Your task to perform on an android device: change keyboard looks Image 0: 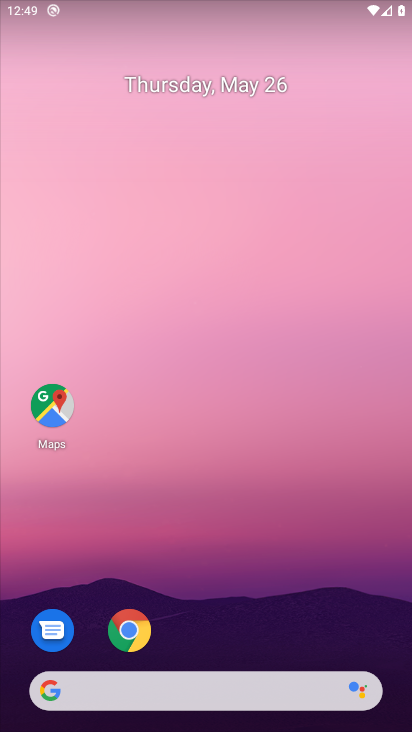
Step 0: press home button
Your task to perform on an android device: change keyboard looks Image 1: 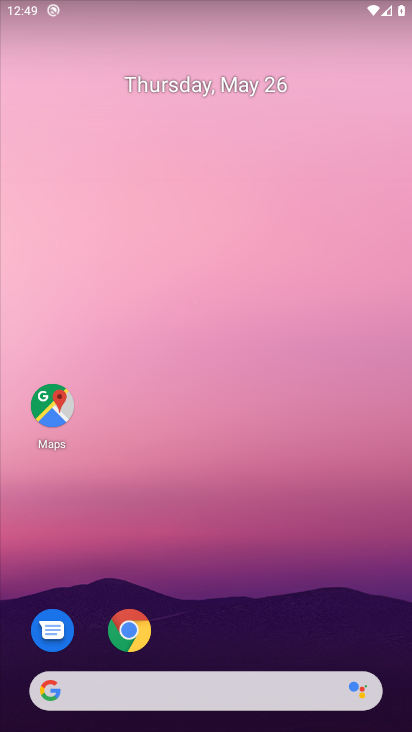
Step 1: drag from (220, 640) to (216, 110)
Your task to perform on an android device: change keyboard looks Image 2: 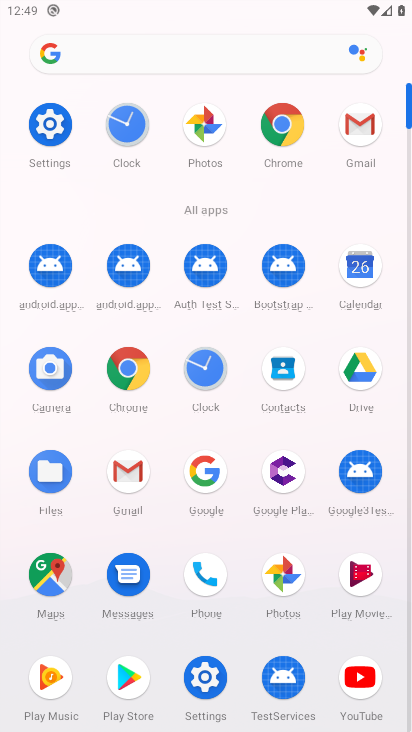
Step 2: click (43, 118)
Your task to perform on an android device: change keyboard looks Image 3: 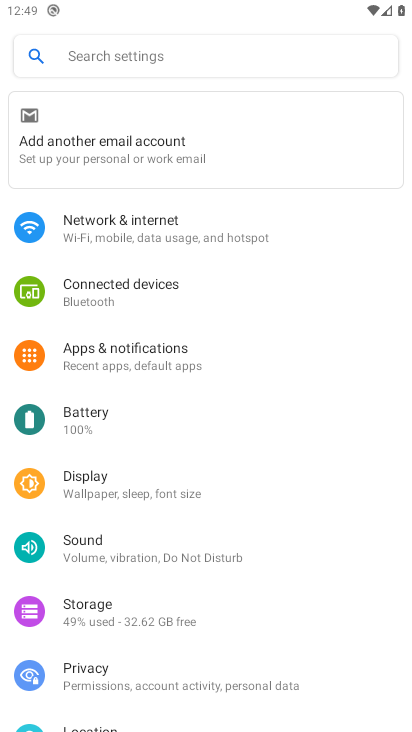
Step 3: drag from (140, 626) to (207, 149)
Your task to perform on an android device: change keyboard looks Image 4: 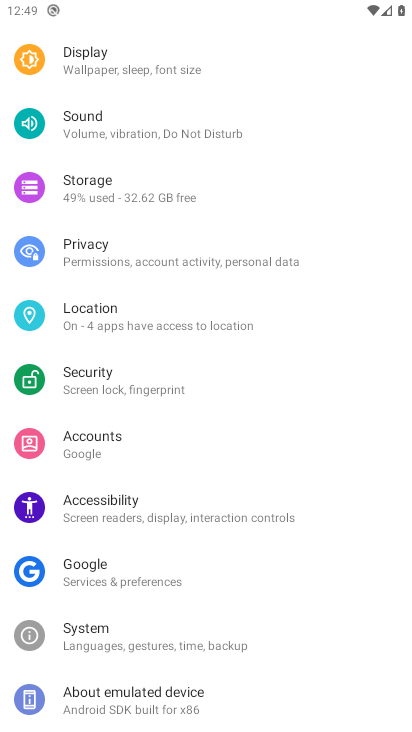
Step 4: click (118, 642)
Your task to perform on an android device: change keyboard looks Image 5: 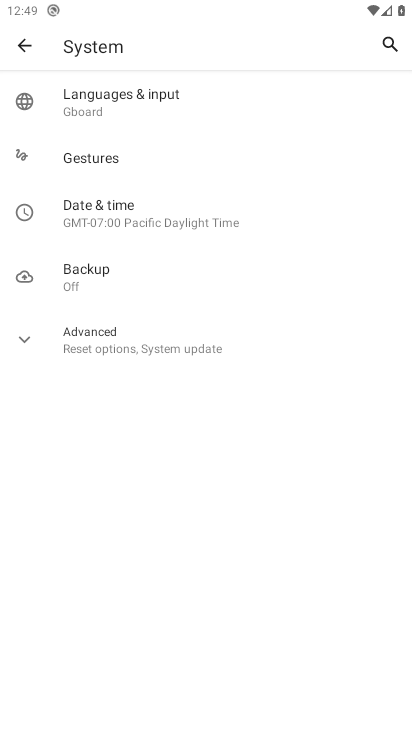
Step 5: click (129, 95)
Your task to perform on an android device: change keyboard looks Image 6: 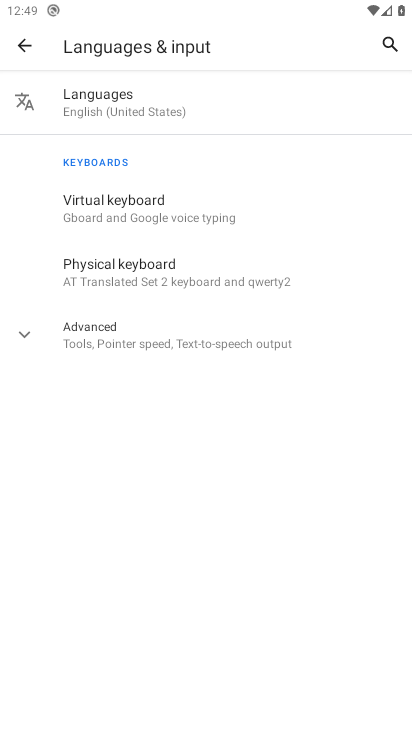
Step 6: click (27, 333)
Your task to perform on an android device: change keyboard looks Image 7: 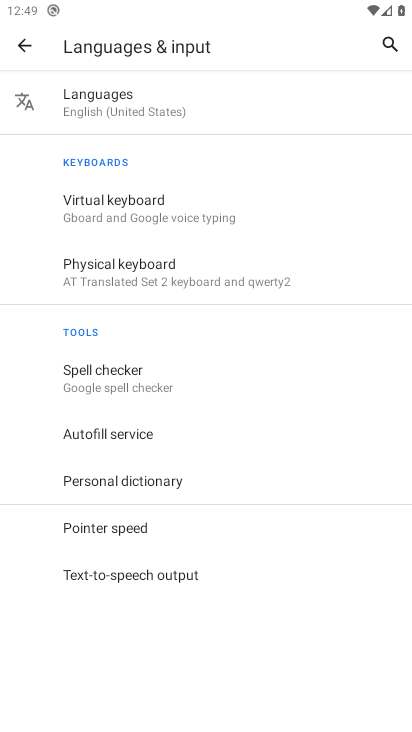
Step 7: click (100, 209)
Your task to perform on an android device: change keyboard looks Image 8: 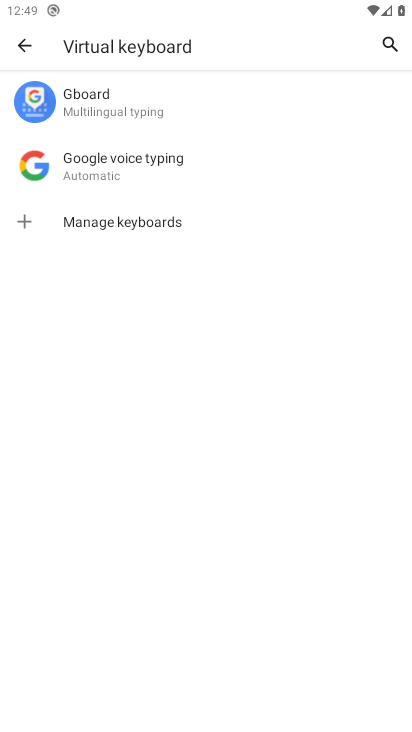
Step 8: click (124, 100)
Your task to perform on an android device: change keyboard looks Image 9: 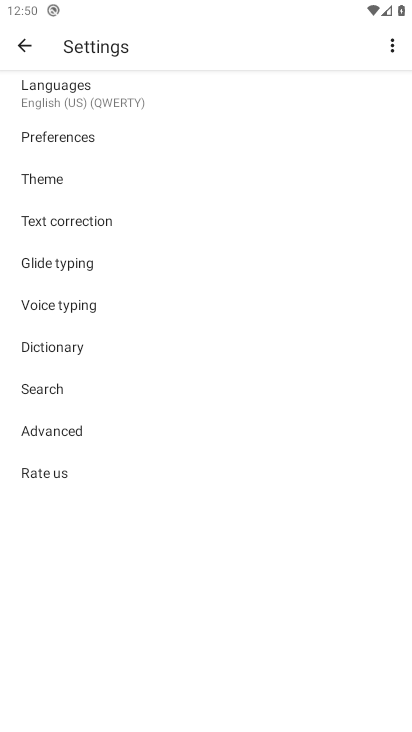
Step 9: click (75, 176)
Your task to perform on an android device: change keyboard looks Image 10: 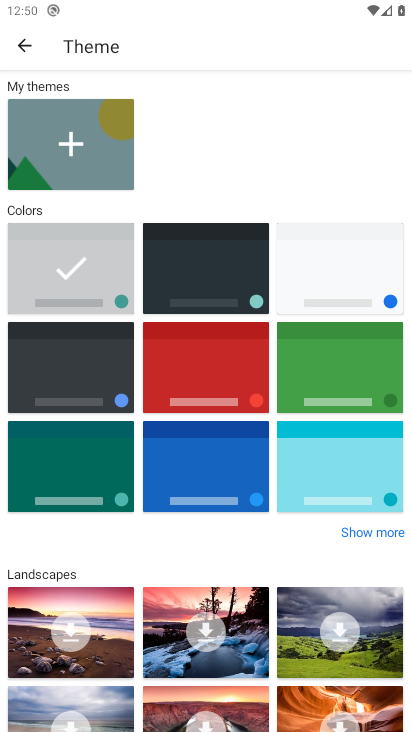
Step 10: click (196, 375)
Your task to perform on an android device: change keyboard looks Image 11: 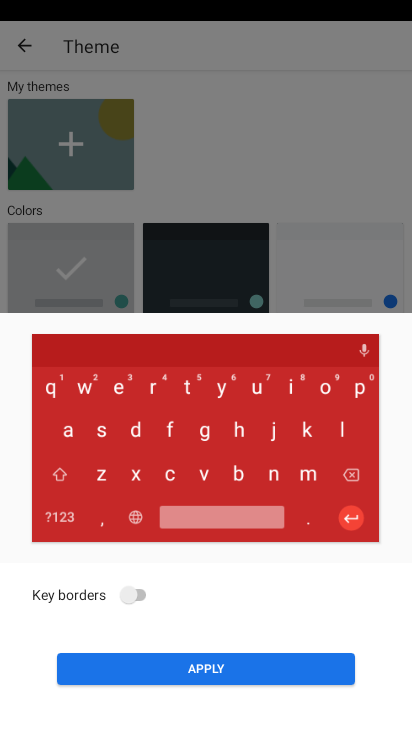
Step 11: click (206, 662)
Your task to perform on an android device: change keyboard looks Image 12: 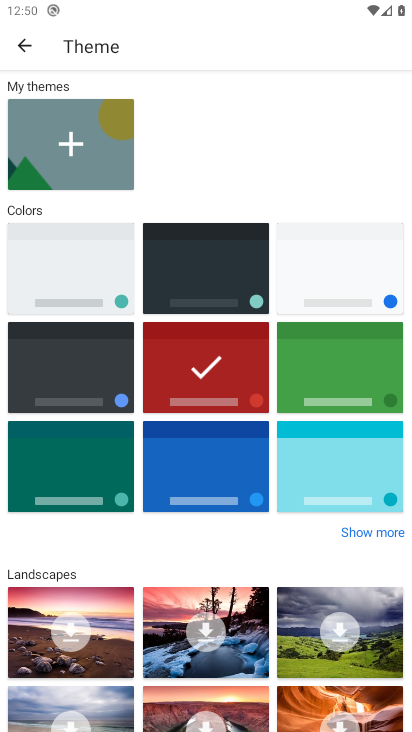
Step 12: task complete